Your task to perform on an android device: toggle airplane mode Image 0: 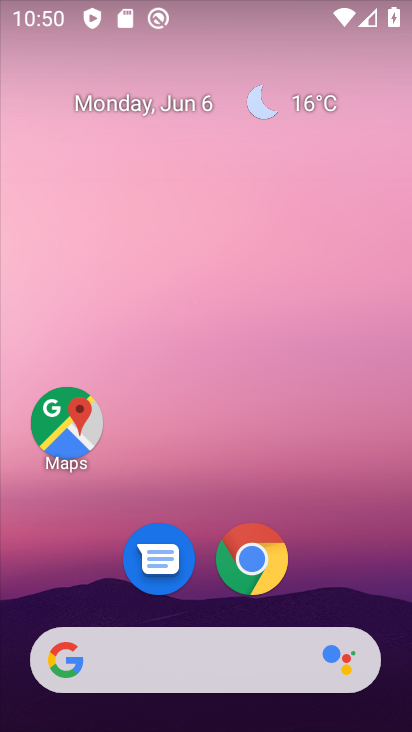
Step 0: drag from (104, 614) to (207, 139)
Your task to perform on an android device: toggle airplane mode Image 1: 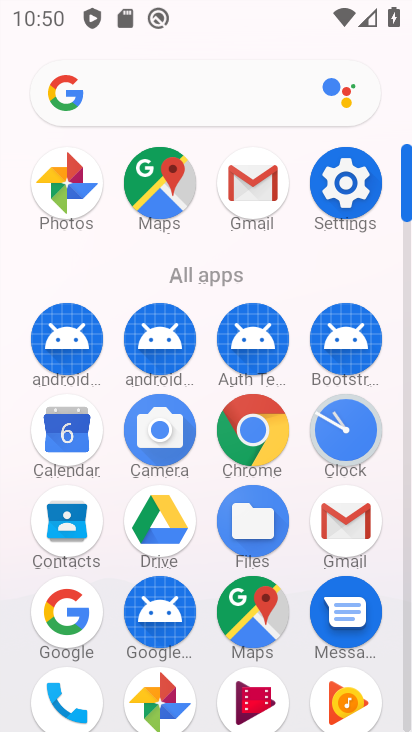
Step 1: drag from (155, 568) to (237, 213)
Your task to perform on an android device: toggle airplane mode Image 2: 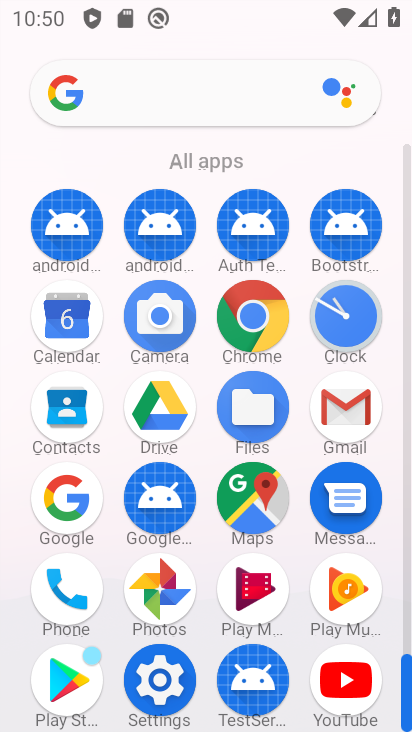
Step 2: click (158, 701)
Your task to perform on an android device: toggle airplane mode Image 3: 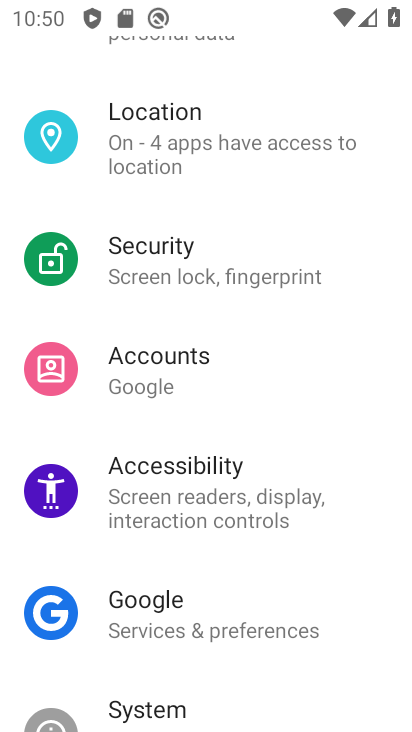
Step 3: drag from (234, 222) to (203, 655)
Your task to perform on an android device: toggle airplane mode Image 4: 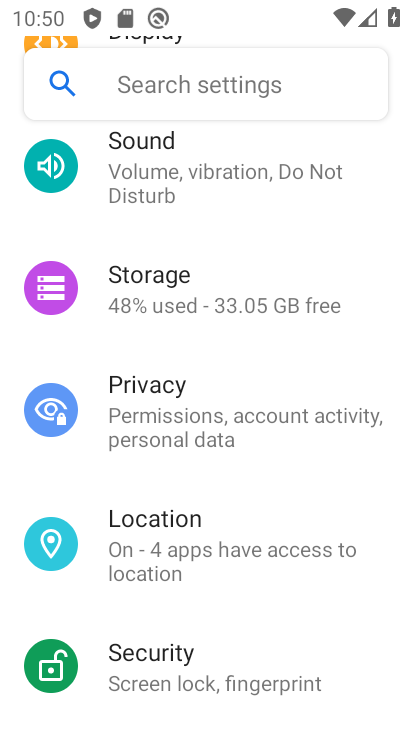
Step 4: drag from (219, 210) to (210, 708)
Your task to perform on an android device: toggle airplane mode Image 5: 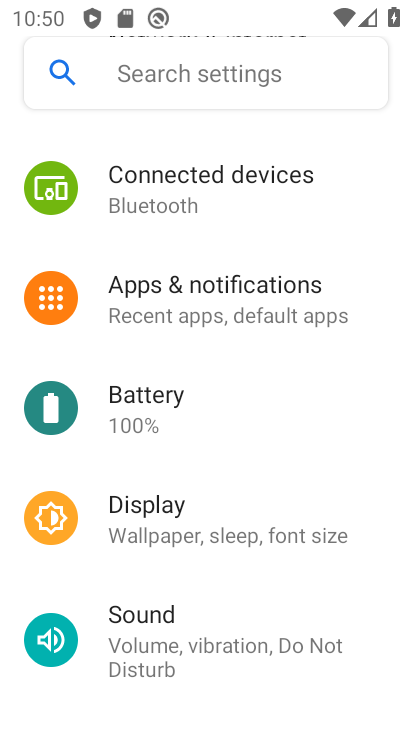
Step 5: drag from (217, 255) to (213, 695)
Your task to perform on an android device: toggle airplane mode Image 6: 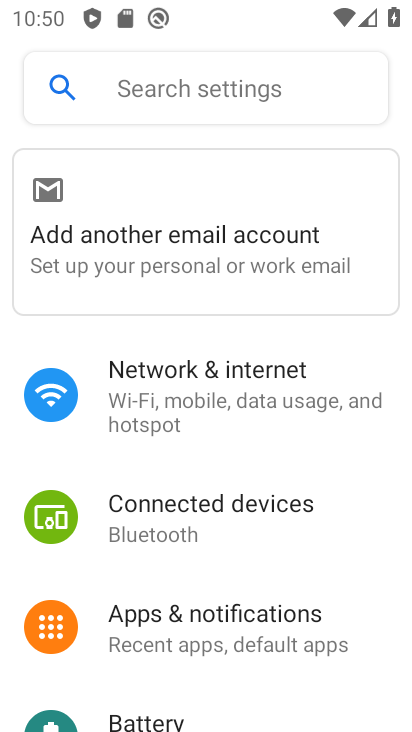
Step 6: drag from (230, 323) to (229, 651)
Your task to perform on an android device: toggle airplane mode Image 7: 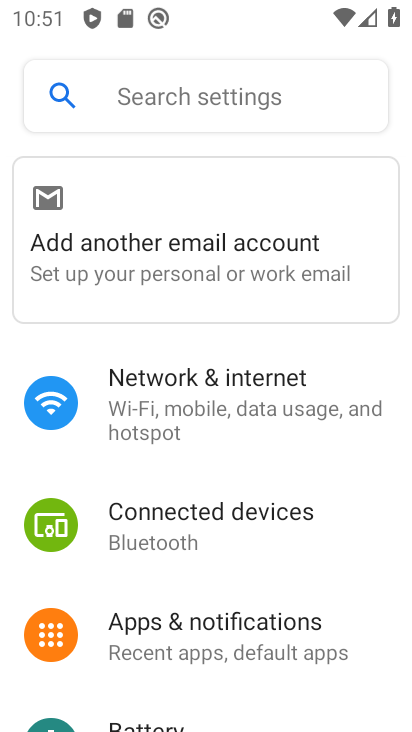
Step 7: click (236, 418)
Your task to perform on an android device: toggle airplane mode Image 8: 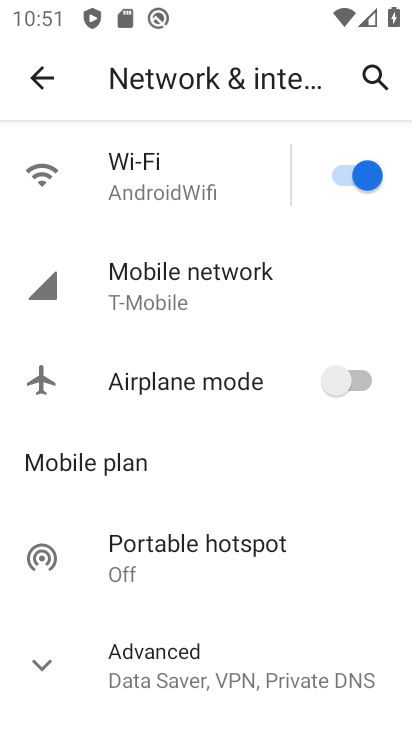
Step 8: click (366, 389)
Your task to perform on an android device: toggle airplane mode Image 9: 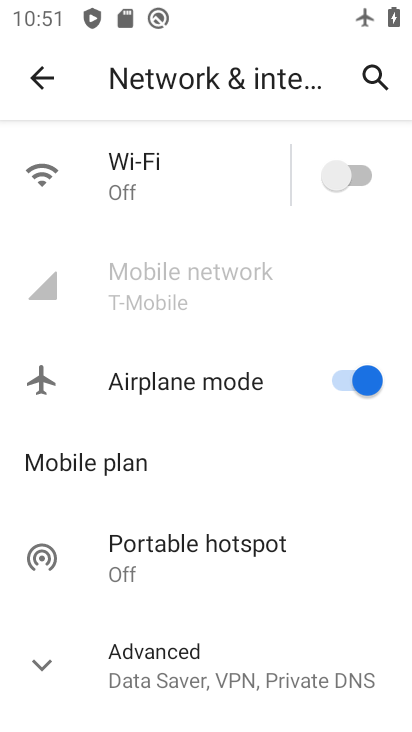
Step 9: task complete